Your task to perform on an android device: Open ESPN.com Image 0: 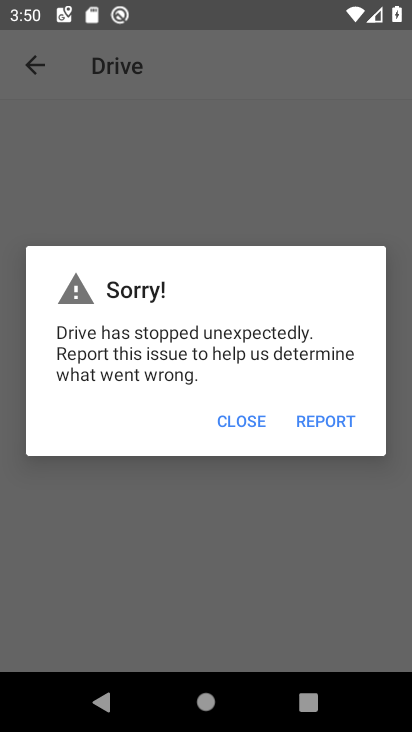
Step 0: press home button
Your task to perform on an android device: Open ESPN.com Image 1: 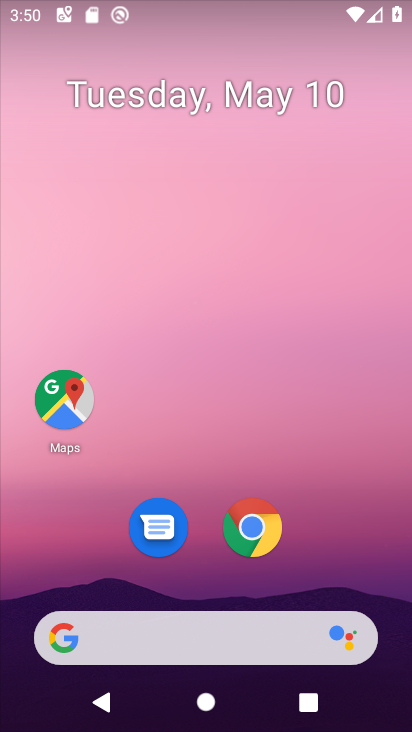
Step 1: drag from (404, 660) to (391, 304)
Your task to perform on an android device: Open ESPN.com Image 2: 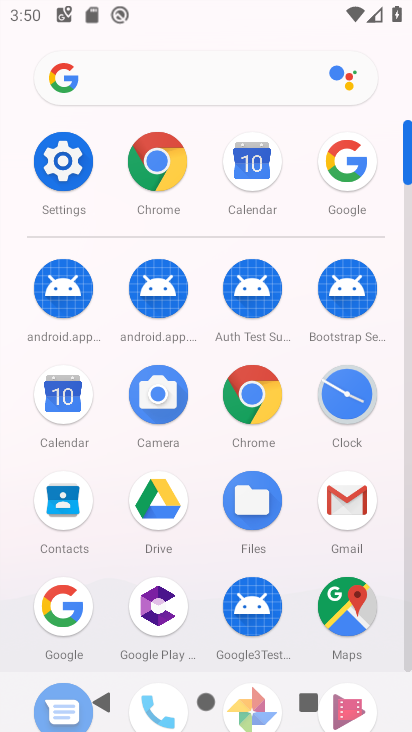
Step 2: click (261, 398)
Your task to perform on an android device: Open ESPN.com Image 3: 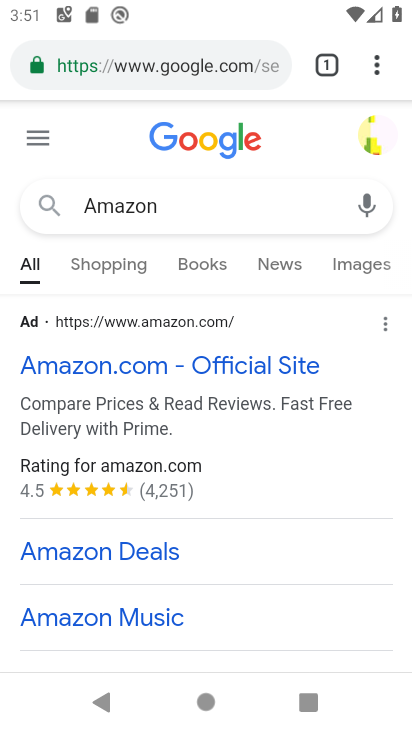
Step 3: click (277, 61)
Your task to perform on an android device: Open ESPN.com Image 4: 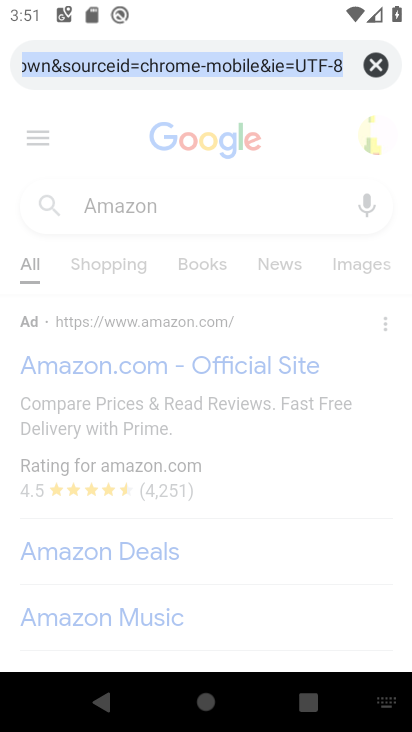
Step 4: click (386, 60)
Your task to perform on an android device: Open ESPN.com Image 5: 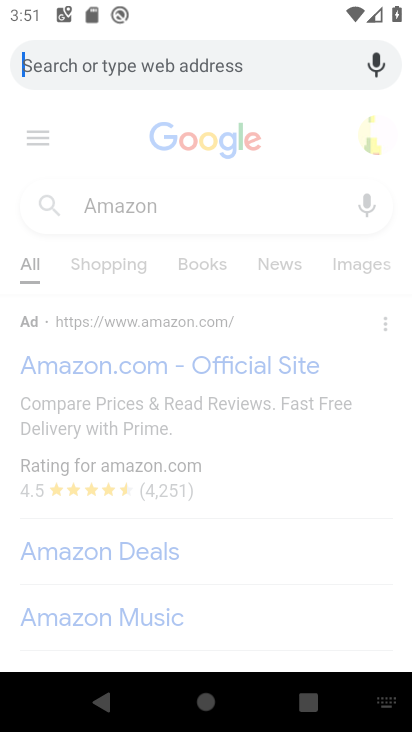
Step 5: type "ESPN.com"
Your task to perform on an android device: Open ESPN.com Image 6: 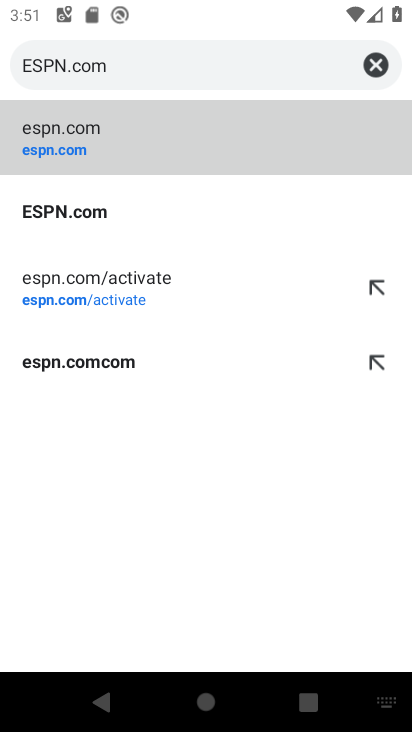
Step 6: click (55, 207)
Your task to perform on an android device: Open ESPN.com Image 7: 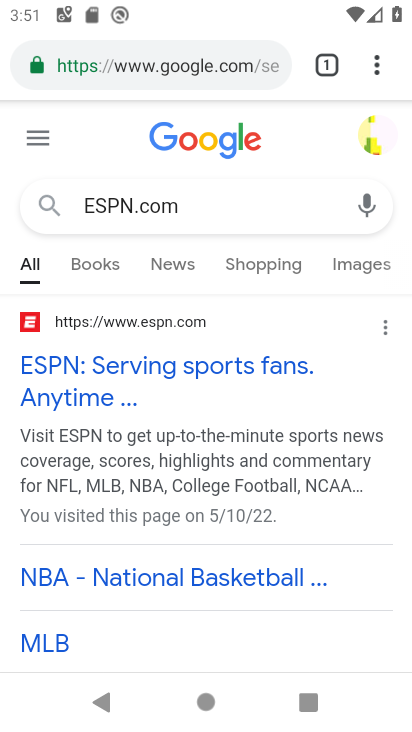
Step 7: task complete